Your task to perform on an android device: Open the map Image 0: 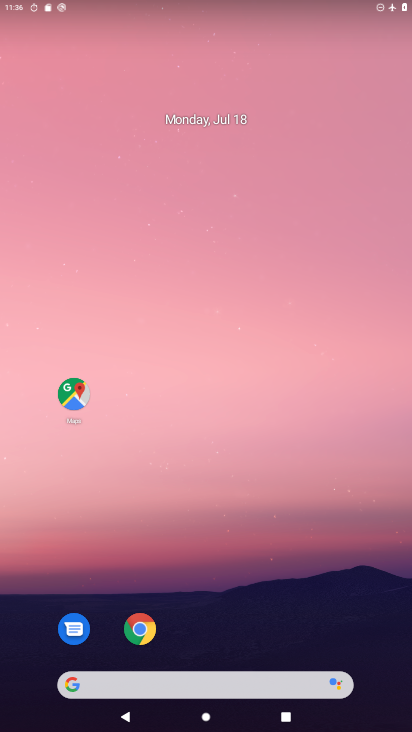
Step 0: drag from (307, 651) to (234, 54)
Your task to perform on an android device: Open the map Image 1: 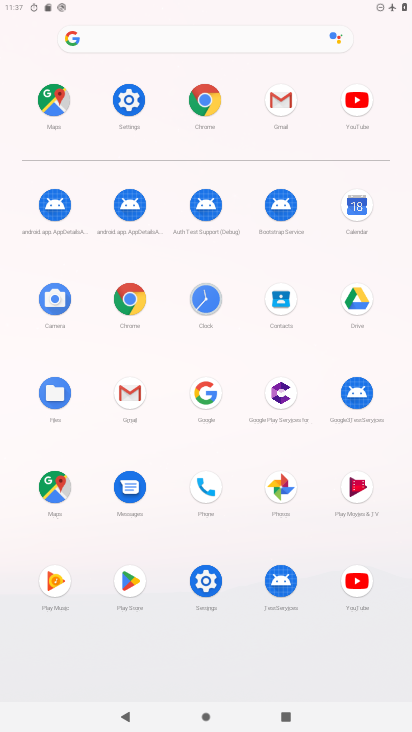
Step 1: click (49, 100)
Your task to perform on an android device: Open the map Image 2: 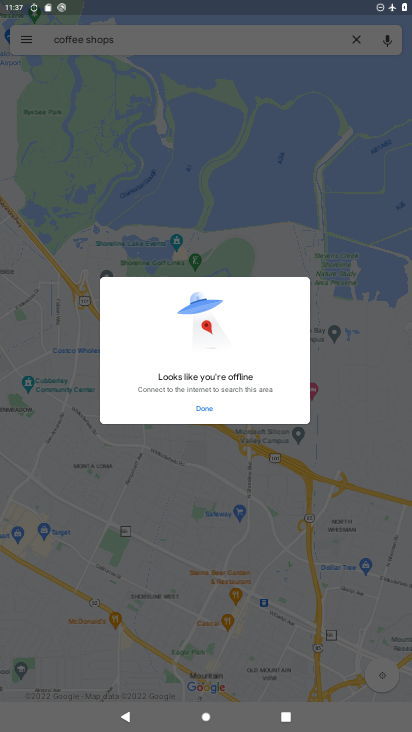
Step 2: task complete